Your task to perform on an android device: install app "Move to iOS" Image 0: 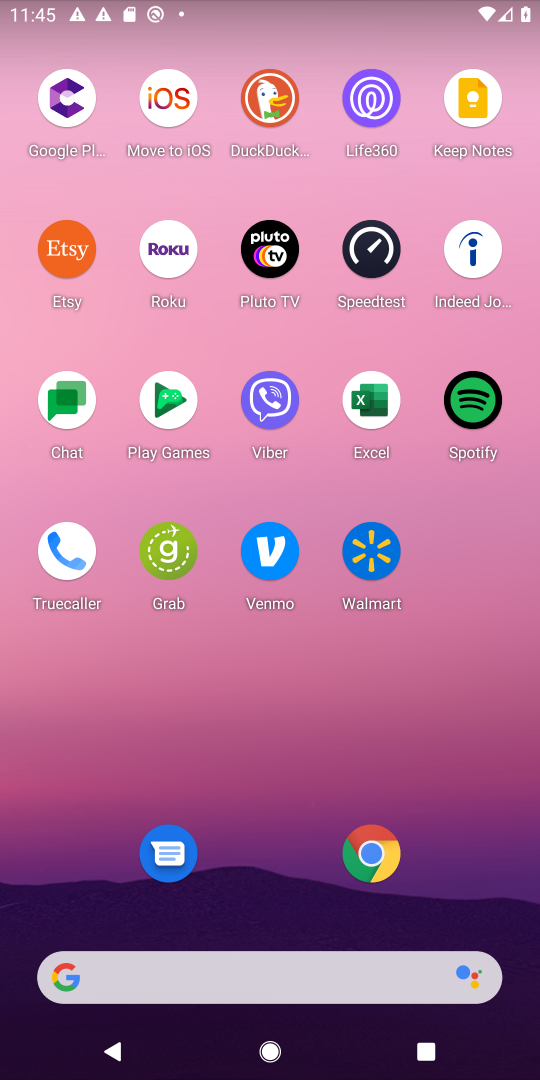
Step 0: drag from (298, 931) to (300, 179)
Your task to perform on an android device: install app "Move to iOS" Image 1: 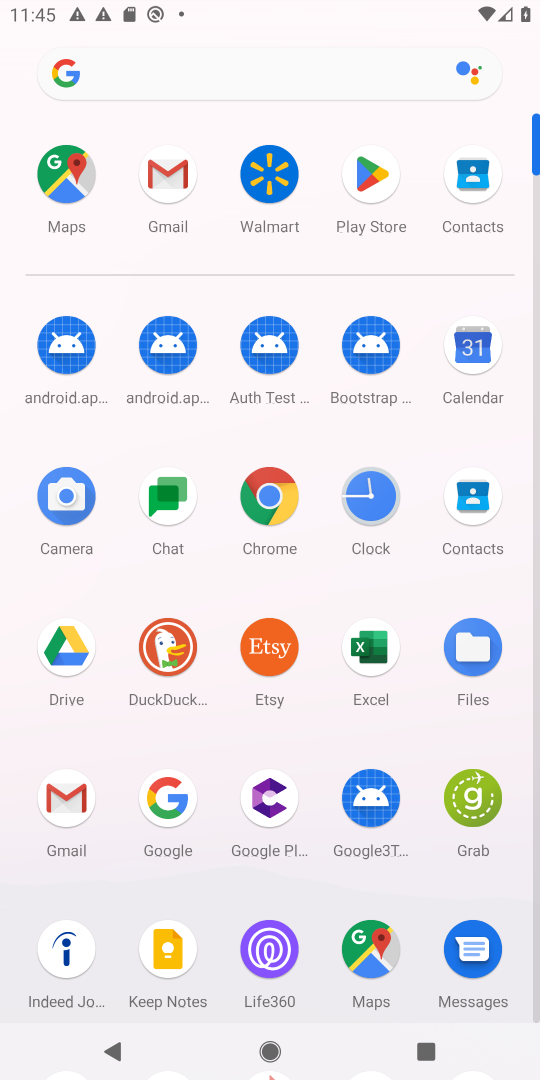
Step 1: click (376, 173)
Your task to perform on an android device: install app "Move to iOS" Image 2: 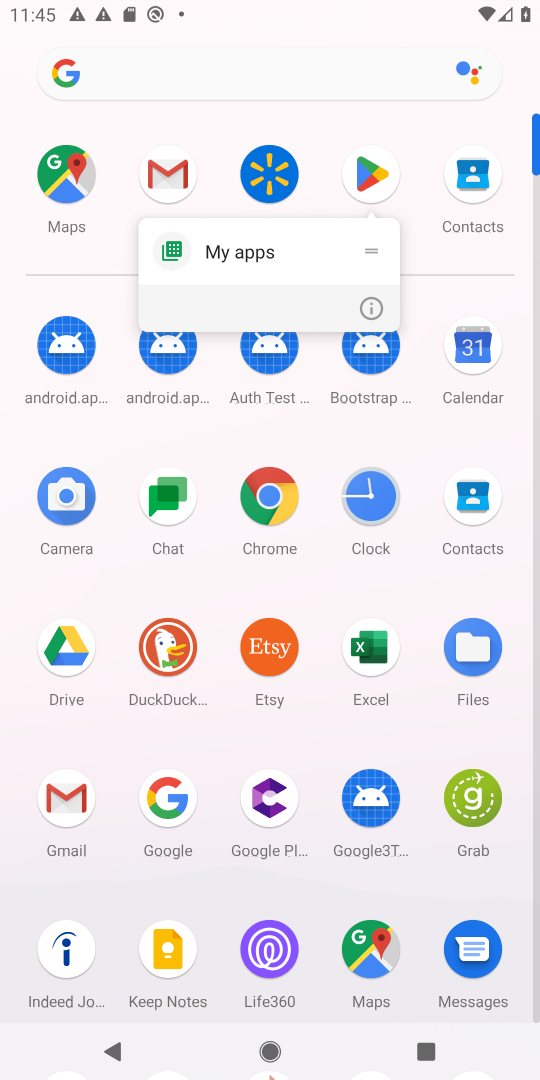
Step 2: click (372, 164)
Your task to perform on an android device: install app "Move to iOS" Image 3: 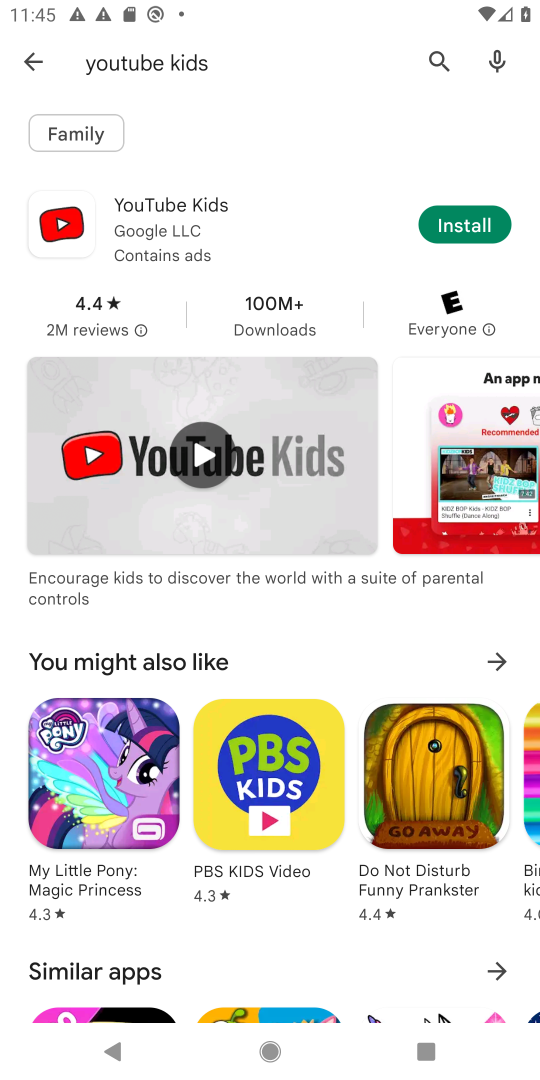
Step 3: click (427, 54)
Your task to perform on an android device: install app "Move to iOS" Image 4: 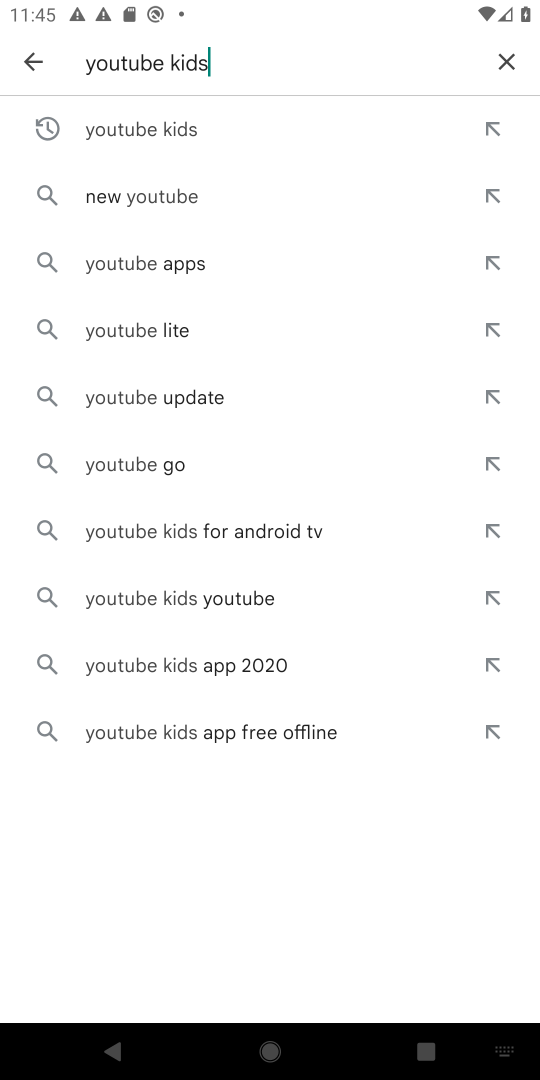
Step 4: click (508, 59)
Your task to perform on an android device: install app "Move to iOS" Image 5: 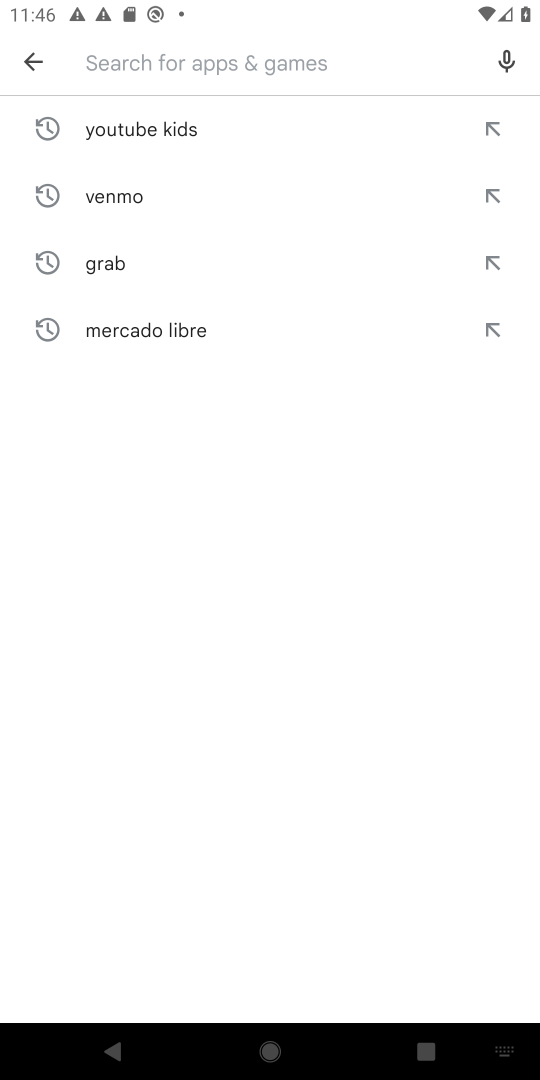
Step 5: type "Move to iOS"
Your task to perform on an android device: install app "Move to iOS" Image 6: 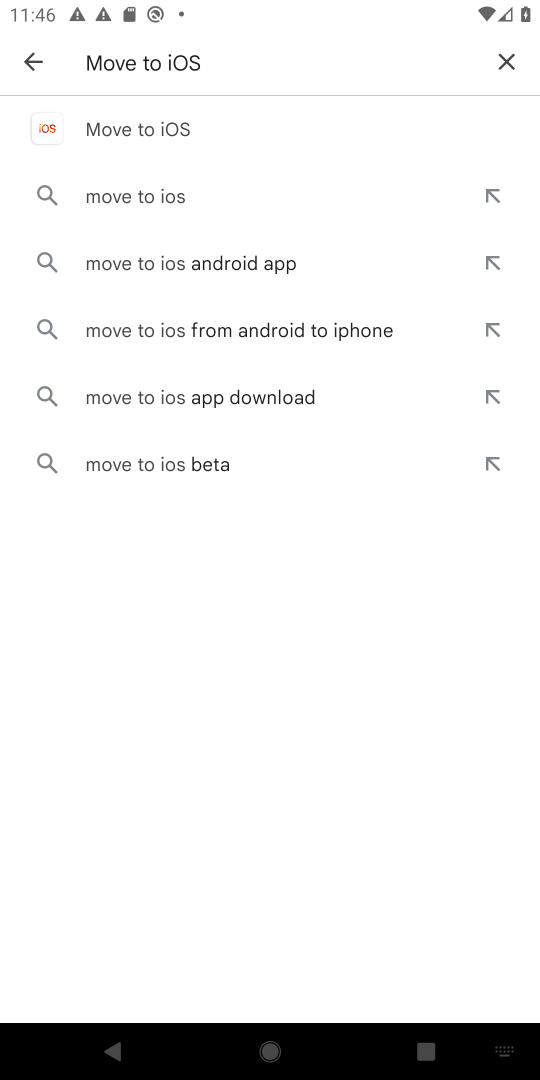
Step 6: click (139, 124)
Your task to perform on an android device: install app "Move to iOS" Image 7: 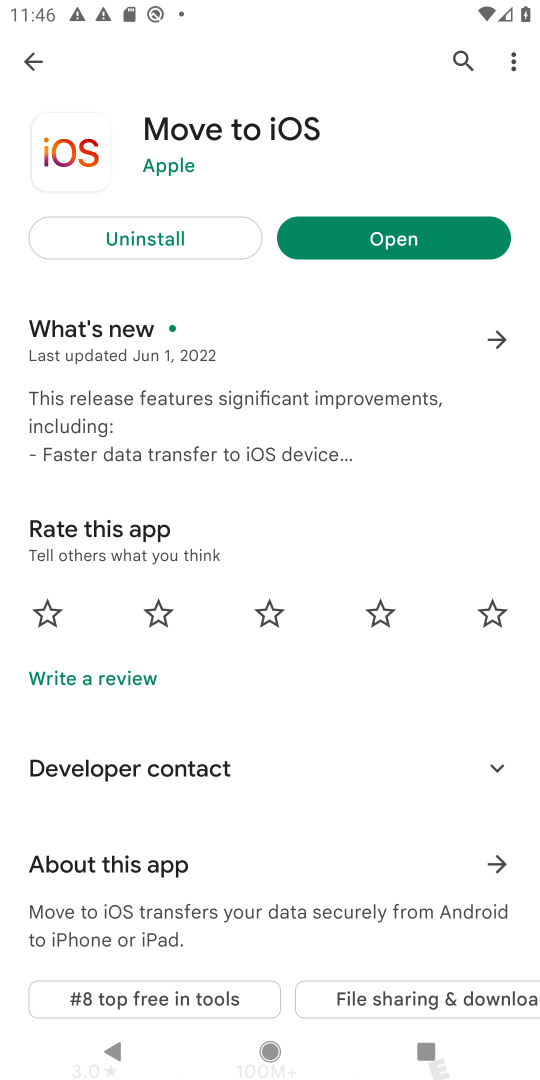
Step 7: task complete